Your task to perform on an android device: Go to calendar. Show me events next week Image 0: 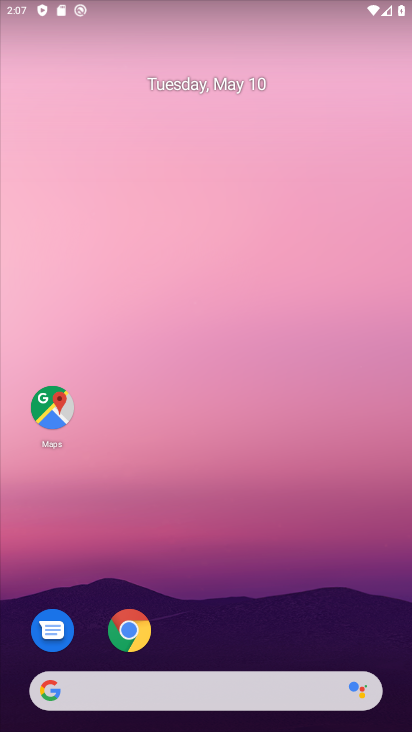
Step 0: drag from (325, 603) to (166, 50)
Your task to perform on an android device: Go to calendar. Show me events next week Image 1: 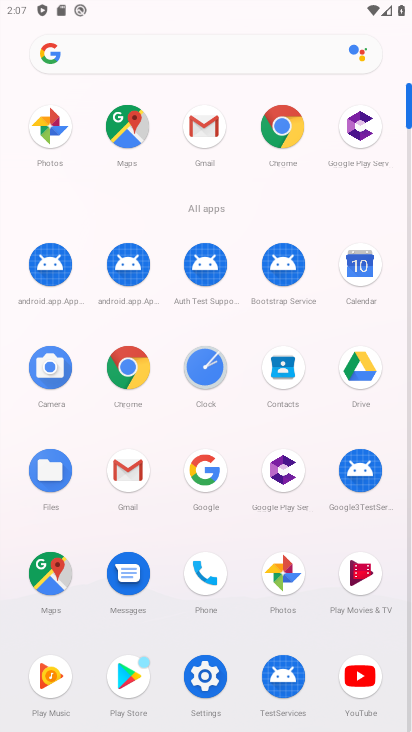
Step 1: click (361, 266)
Your task to perform on an android device: Go to calendar. Show me events next week Image 2: 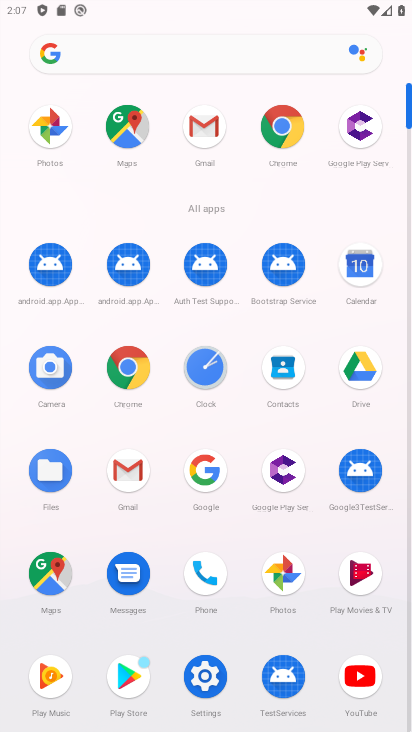
Step 2: click (361, 266)
Your task to perform on an android device: Go to calendar. Show me events next week Image 3: 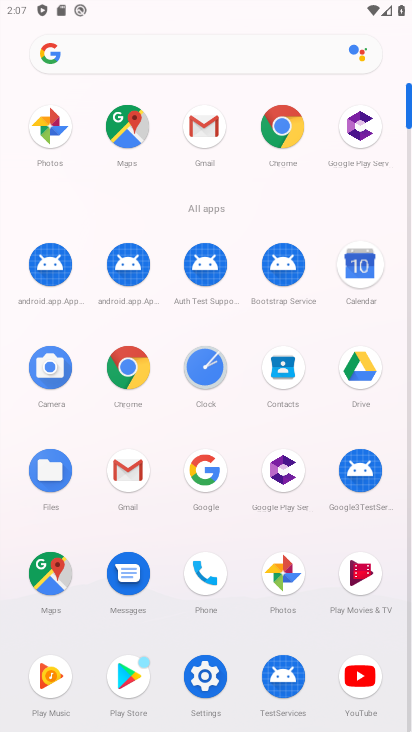
Step 3: click (360, 265)
Your task to perform on an android device: Go to calendar. Show me events next week Image 4: 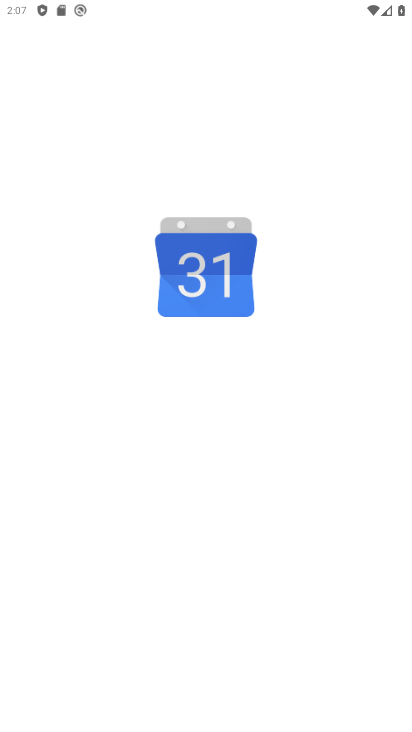
Step 4: click (354, 275)
Your task to perform on an android device: Go to calendar. Show me events next week Image 5: 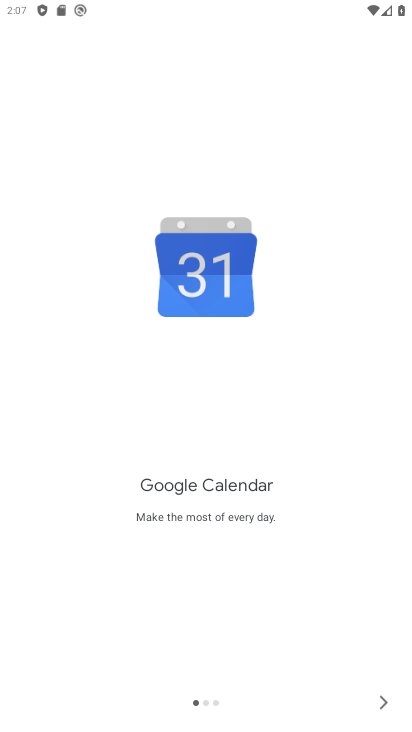
Step 5: click (387, 704)
Your task to perform on an android device: Go to calendar. Show me events next week Image 6: 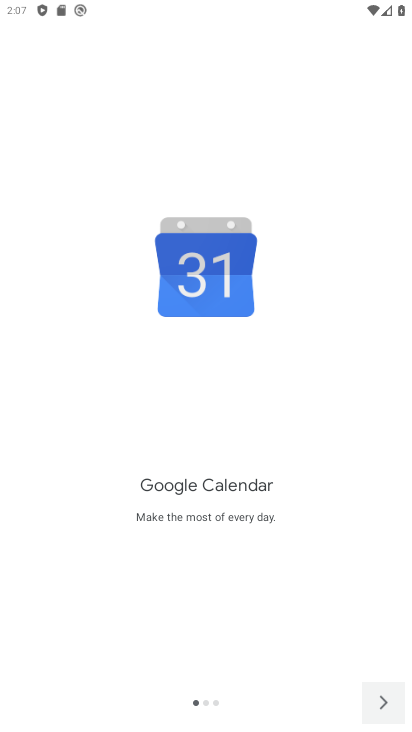
Step 6: click (384, 704)
Your task to perform on an android device: Go to calendar. Show me events next week Image 7: 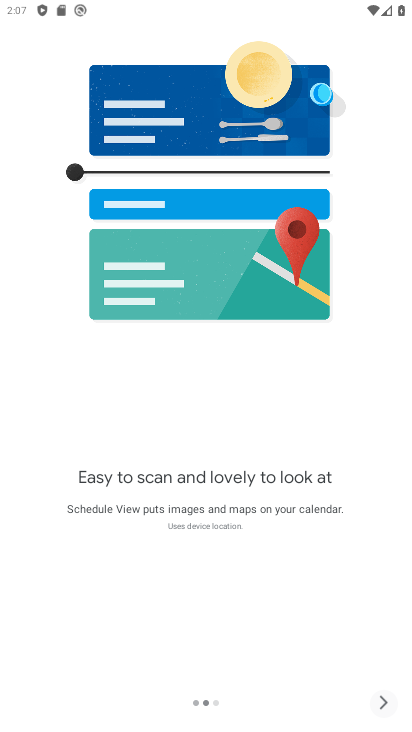
Step 7: click (384, 704)
Your task to perform on an android device: Go to calendar. Show me events next week Image 8: 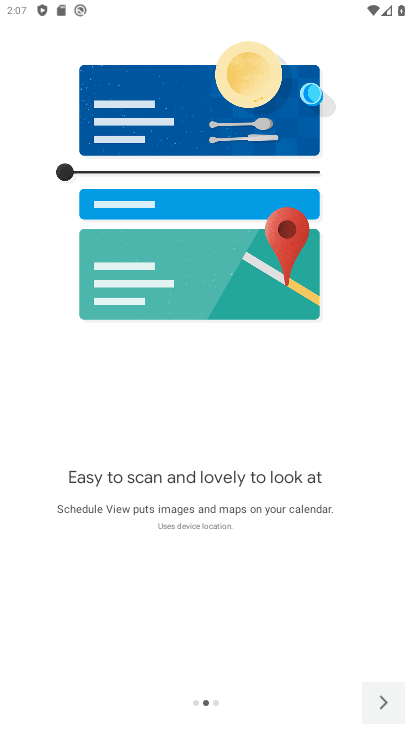
Step 8: click (383, 704)
Your task to perform on an android device: Go to calendar. Show me events next week Image 9: 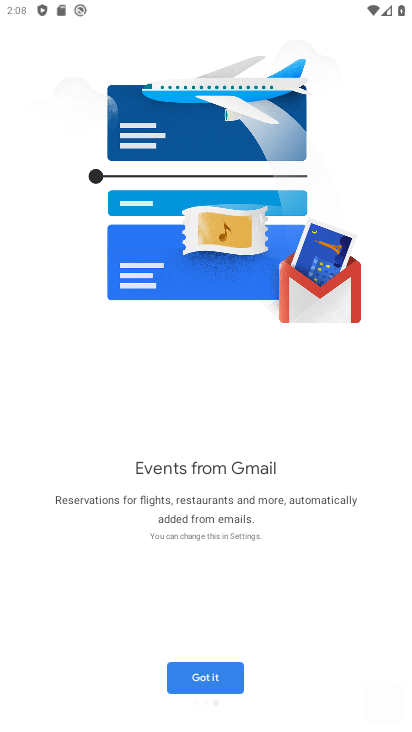
Step 9: click (382, 704)
Your task to perform on an android device: Go to calendar. Show me events next week Image 10: 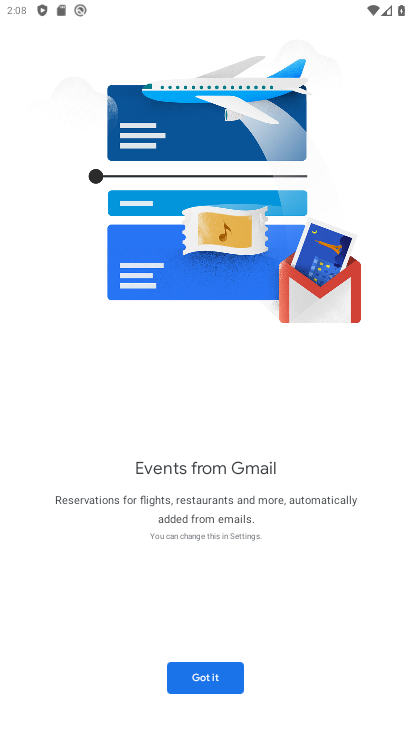
Step 10: click (380, 697)
Your task to perform on an android device: Go to calendar. Show me events next week Image 11: 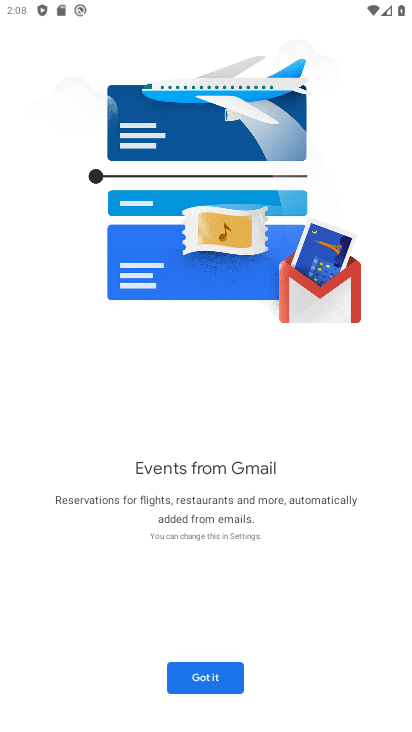
Step 11: click (196, 683)
Your task to perform on an android device: Go to calendar. Show me events next week Image 12: 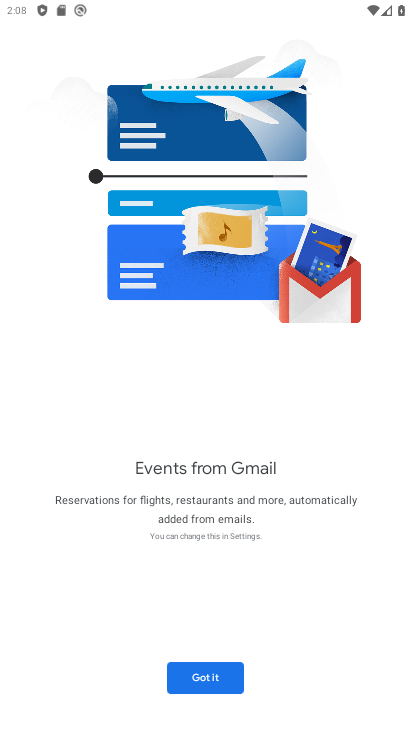
Step 12: click (197, 681)
Your task to perform on an android device: Go to calendar. Show me events next week Image 13: 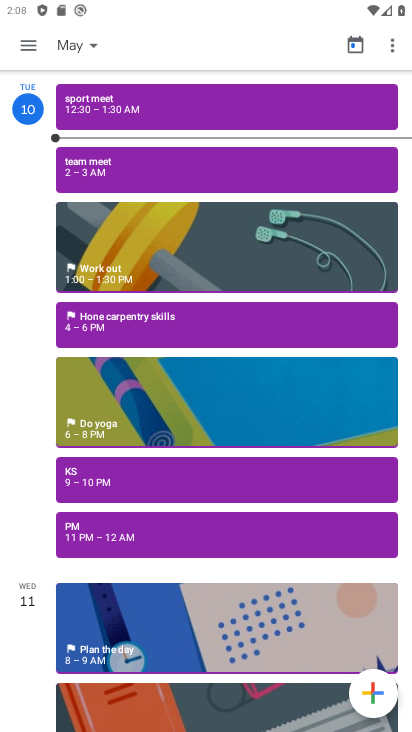
Step 13: drag from (90, 43) to (169, 459)
Your task to perform on an android device: Go to calendar. Show me events next week Image 14: 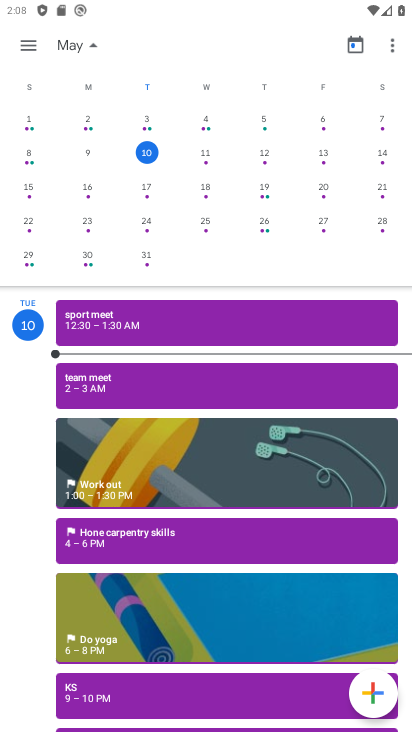
Step 14: click (153, 421)
Your task to perform on an android device: Go to calendar. Show me events next week Image 15: 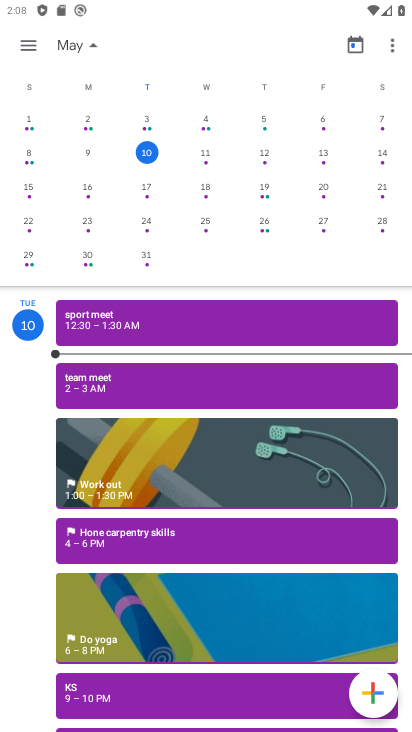
Step 15: click (153, 421)
Your task to perform on an android device: Go to calendar. Show me events next week Image 16: 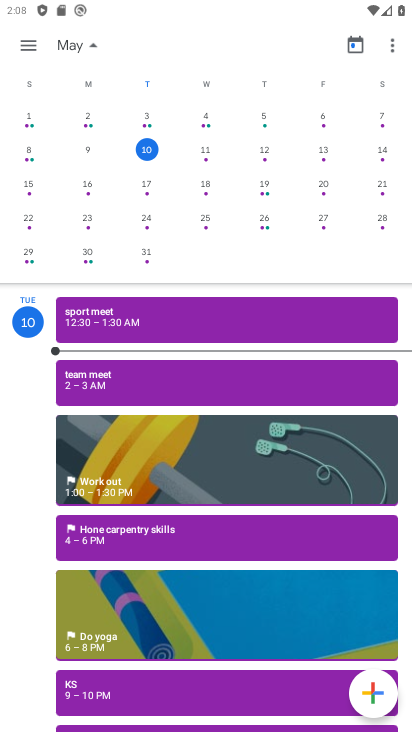
Step 16: click (145, 188)
Your task to perform on an android device: Go to calendar. Show me events next week Image 17: 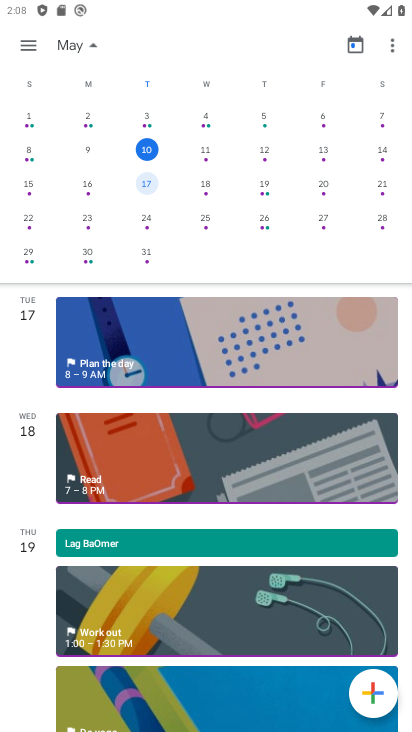
Step 17: click (146, 182)
Your task to perform on an android device: Go to calendar. Show me events next week Image 18: 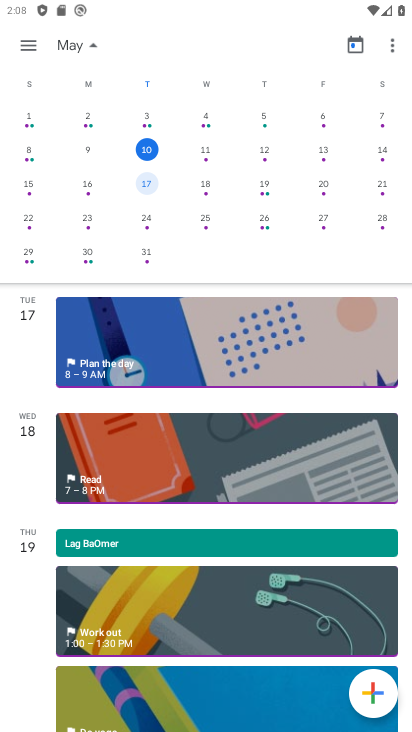
Step 18: click (146, 182)
Your task to perform on an android device: Go to calendar. Show me events next week Image 19: 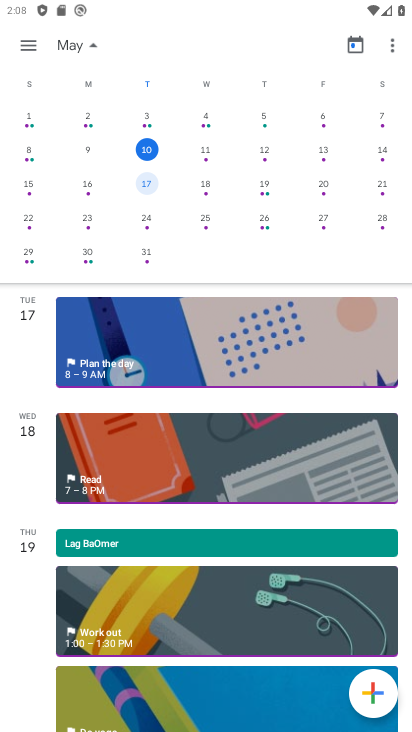
Step 19: click (145, 181)
Your task to perform on an android device: Go to calendar. Show me events next week Image 20: 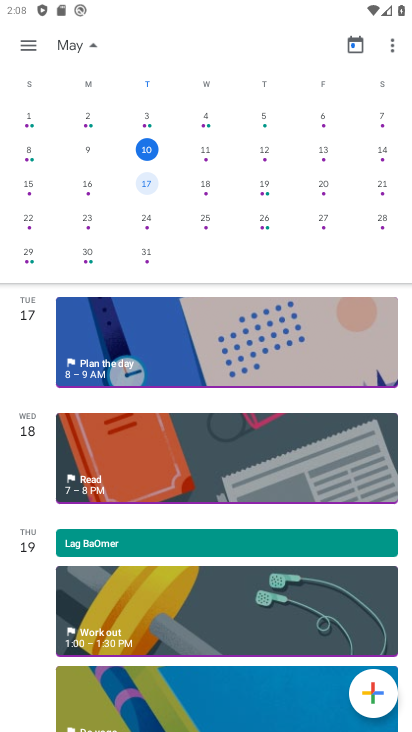
Step 20: click (144, 181)
Your task to perform on an android device: Go to calendar. Show me events next week Image 21: 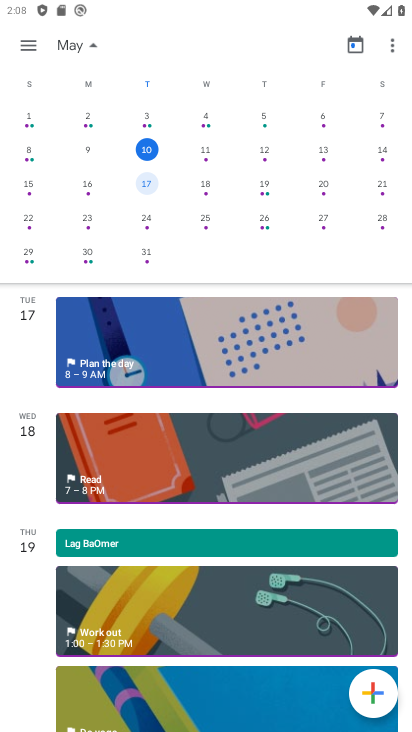
Step 21: click (144, 181)
Your task to perform on an android device: Go to calendar. Show me events next week Image 22: 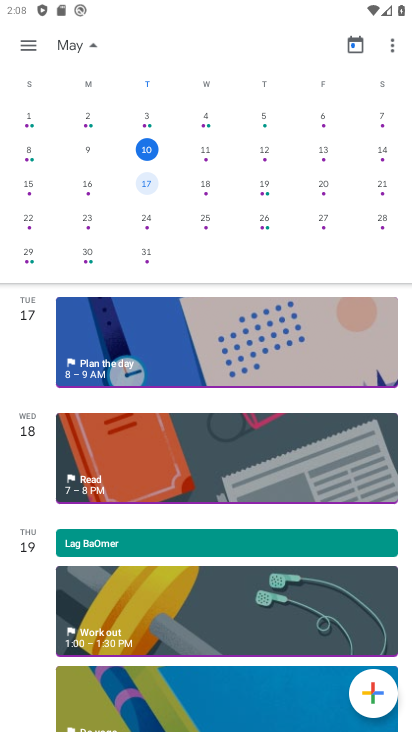
Step 22: click (144, 181)
Your task to perform on an android device: Go to calendar. Show me events next week Image 23: 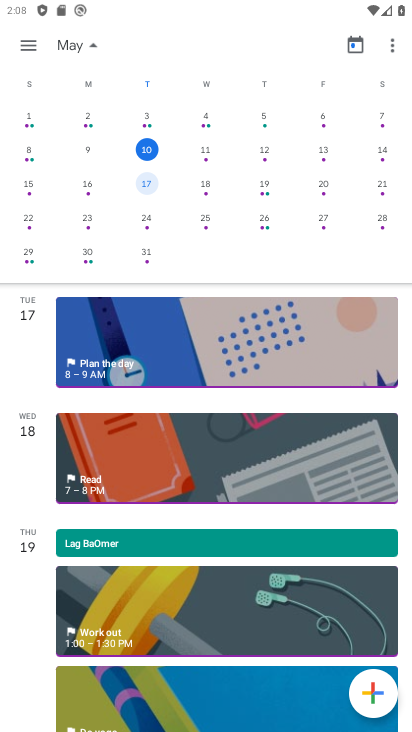
Step 23: click (144, 181)
Your task to perform on an android device: Go to calendar. Show me events next week Image 24: 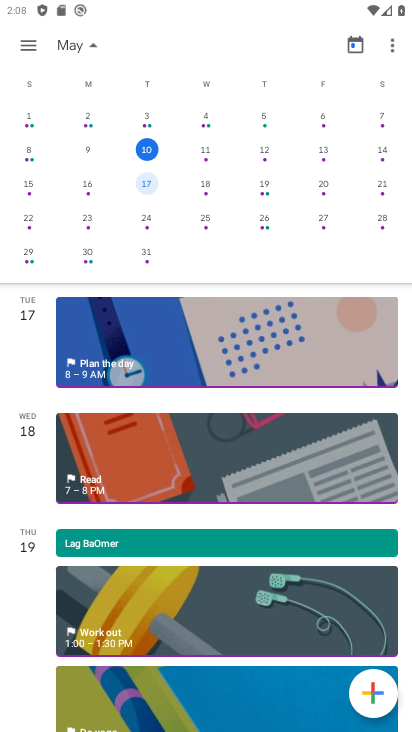
Step 24: click (144, 181)
Your task to perform on an android device: Go to calendar. Show me events next week Image 25: 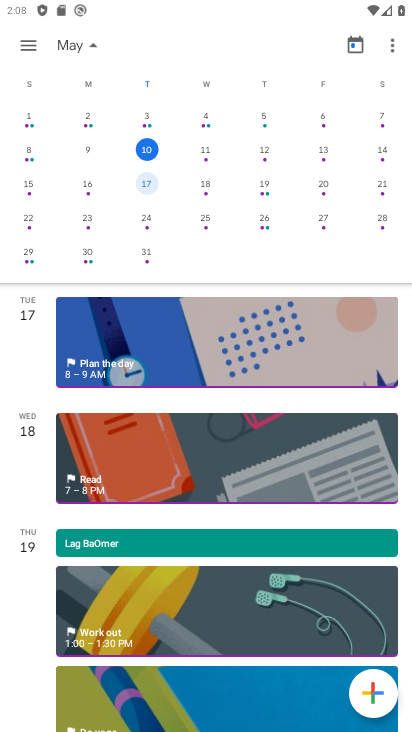
Step 25: click (157, 195)
Your task to perform on an android device: Go to calendar. Show me events next week Image 26: 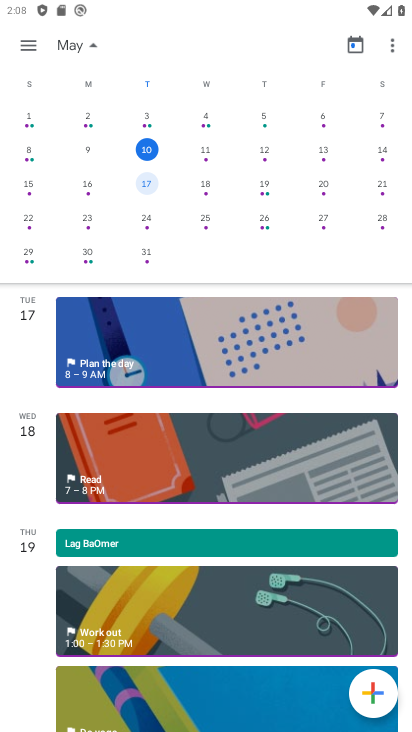
Step 26: task complete